Your task to perform on an android device: Search for flights from San Diego to Seattle Image 0: 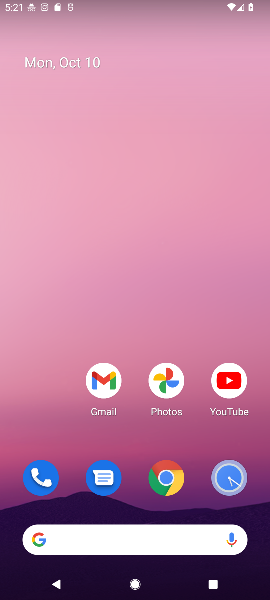
Step 0: click (171, 474)
Your task to perform on an android device: Search for flights from San Diego to Seattle Image 1: 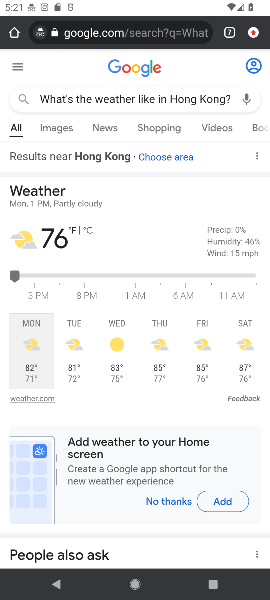
Step 1: click (129, 42)
Your task to perform on an android device: Search for flights from San Diego to Seattle Image 2: 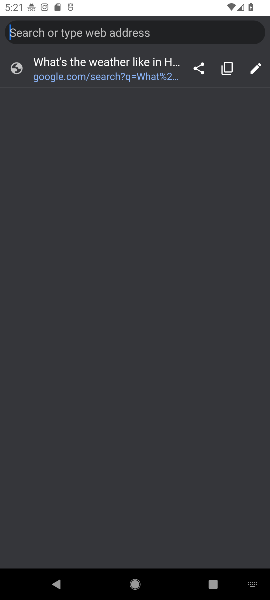
Step 2: type "Search for flights from San Diego to Seattle"
Your task to perform on an android device: Search for flights from San Diego to Seattle Image 3: 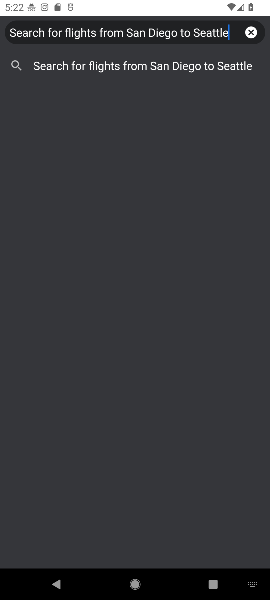
Step 3: click (196, 65)
Your task to perform on an android device: Search for flights from San Diego to Seattle Image 4: 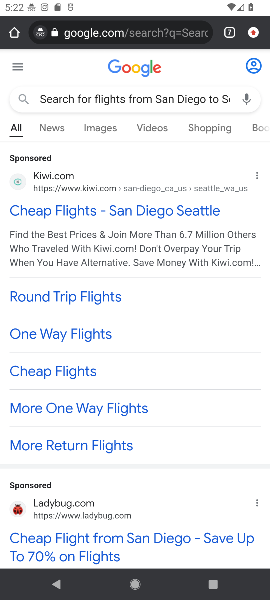
Step 4: drag from (194, 86) to (197, 52)
Your task to perform on an android device: Search for flights from San Diego to Seattle Image 5: 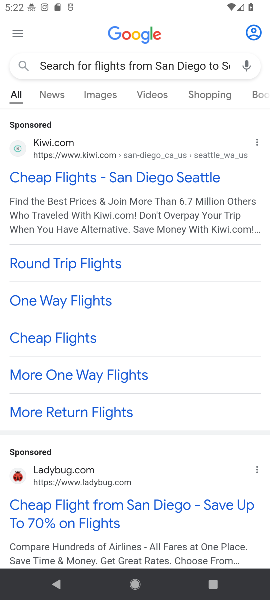
Step 5: drag from (138, 550) to (225, 119)
Your task to perform on an android device: Search for flights from San Diego to Seattle Image 6: 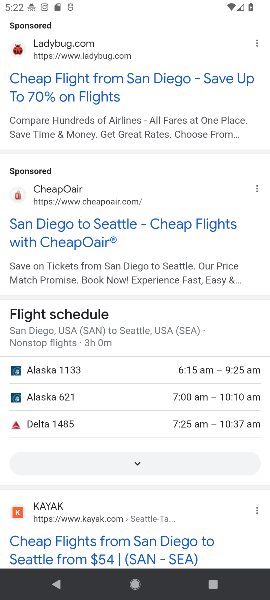
Step 6: click (157, 463)
Your task to perform on an android device: Search for flights from San Diego to Seattle Image 7: 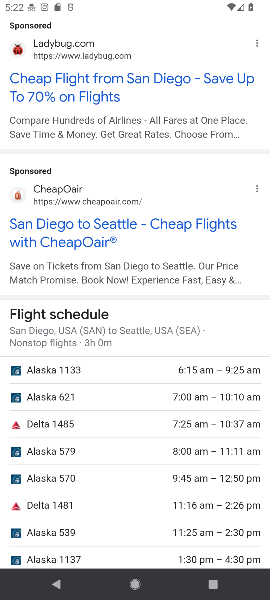
Step 7: task complete